Your task to perform on an android device: What is the recent news? Image 0: 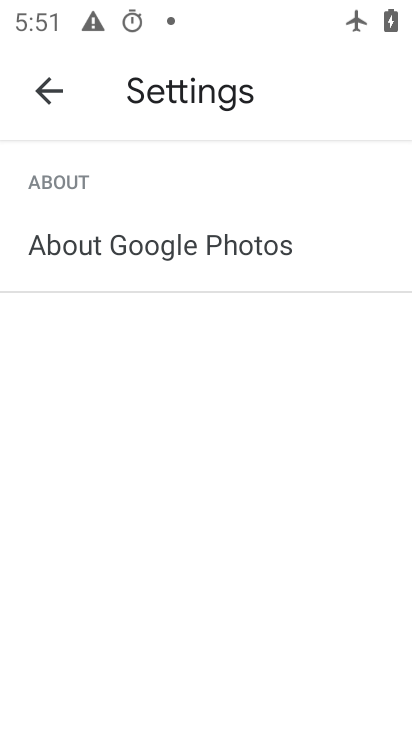
Step 0: press home button
Your task to perform on an android device: What is the recent news? Image 1: 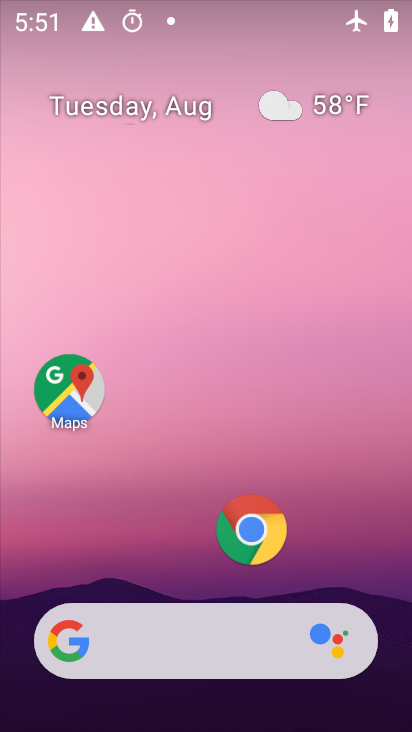
Step 1: drag from (174, 556) to (198, 172)
Your task to perform on an android device: What is the recent news? Image 2: 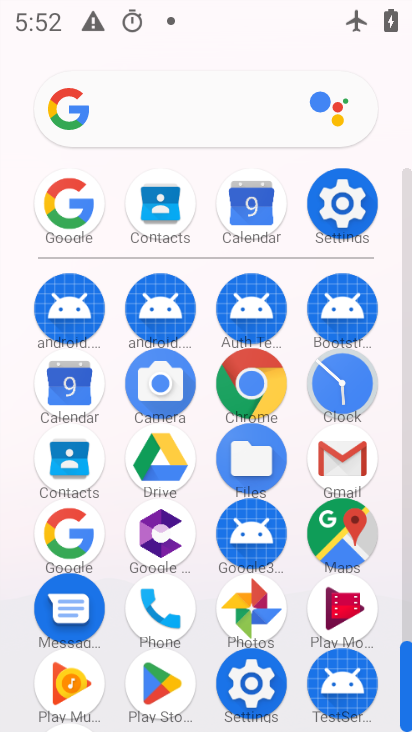
Step 2: click (95, 537)
Your task to perform on an android device: What is the recent news? Image 3: 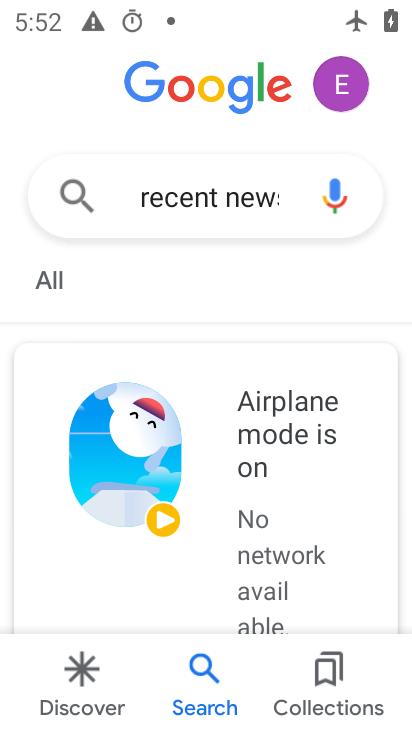
Step 3: task complete